Your task to perform on an android device: toggle javascript in the chrome app Image 0: 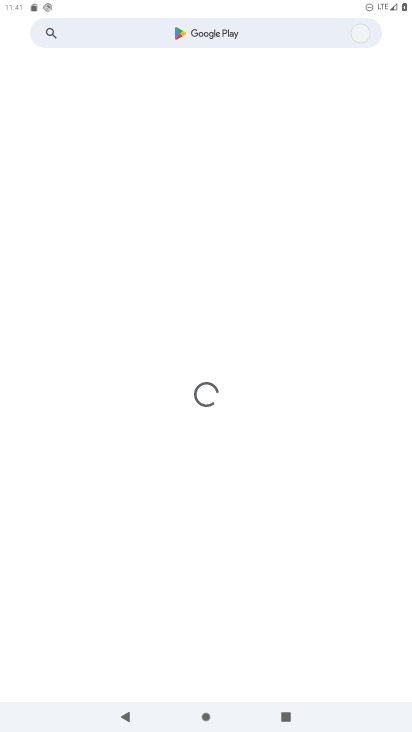
Step 0: press home button
Your task to perform on an android device: toggle javascript in the chrome app Image 1: 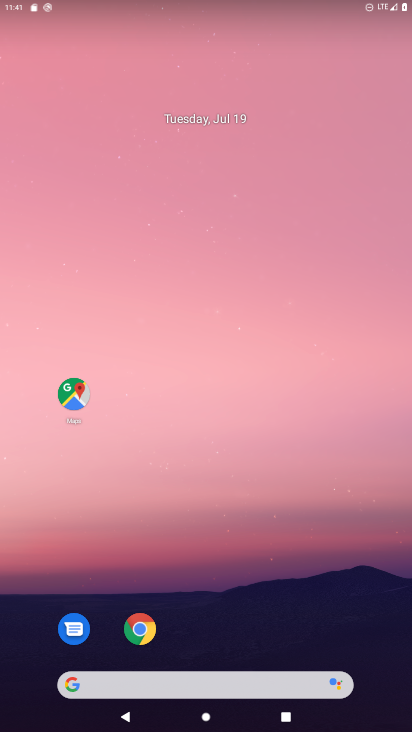
Step 1: click (142, 642)
Your task to perform on an android device: toggle javascript in the chrome app Image 2: 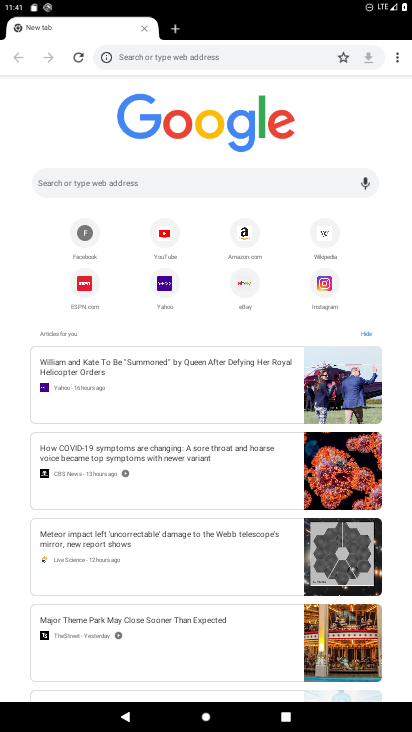
Step 2: click (400, 58)
Your task to perform on an android device: toggle javascript in the chrome app Image 3: 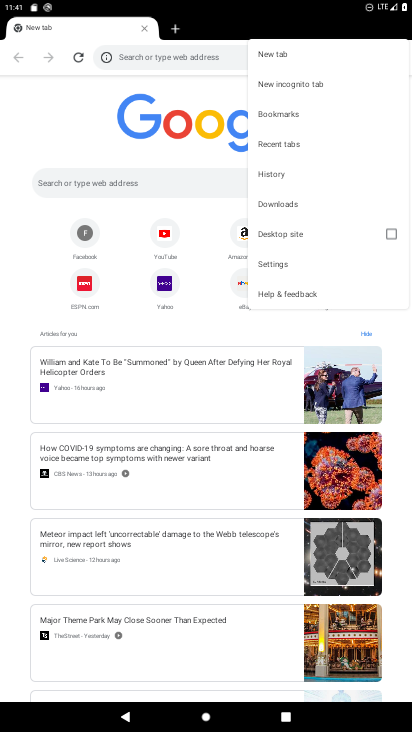
Step 3: click (273, 258)
Your task to perform on an android device: toggle javascript in the chrome app Image 4: 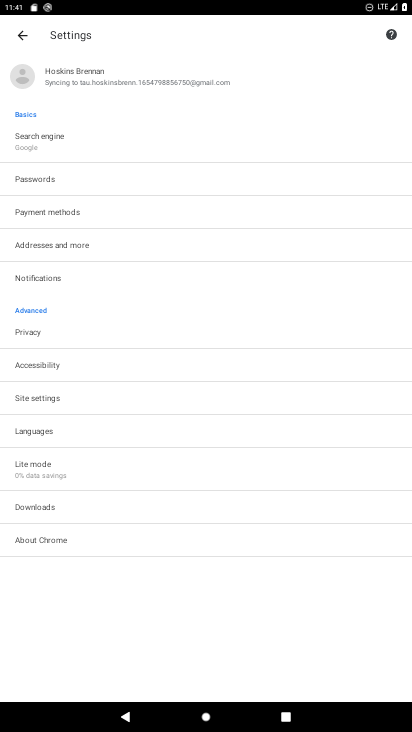
Step 4: click (36, 402)
Your task to perform on an android device: toggle javascript in the chrome app Image 5: 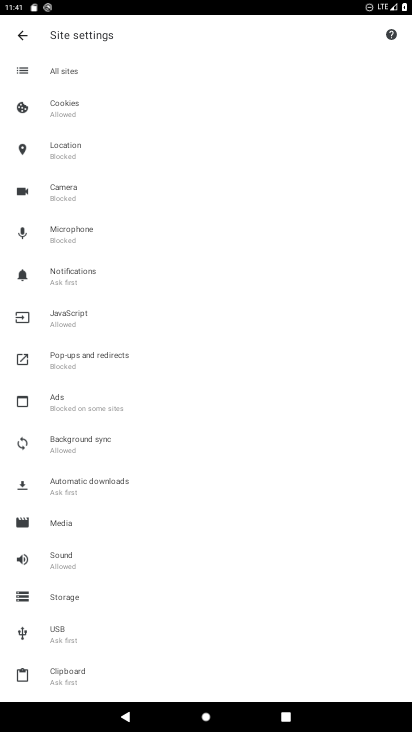
Step 5: click (72, 321)
Your task to perform on an android device: toggle javascript in the chrome app Image 6: 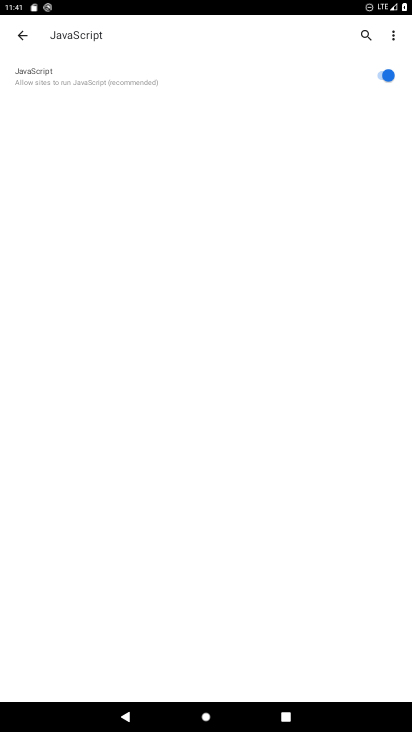
Step 6: click (384, 71)
Your task to perform on an android device: toggle javascript in the chrome app Image 7: 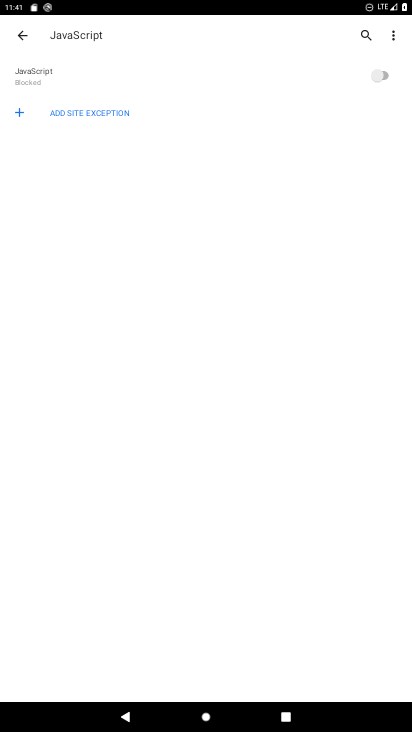
Step 7: task complete